Your task to perform on an android device: Empty the shopping cart on amazon.com. Search for razer kraken on amazon.com, select the first entry, and add it to the cart. Image 0: 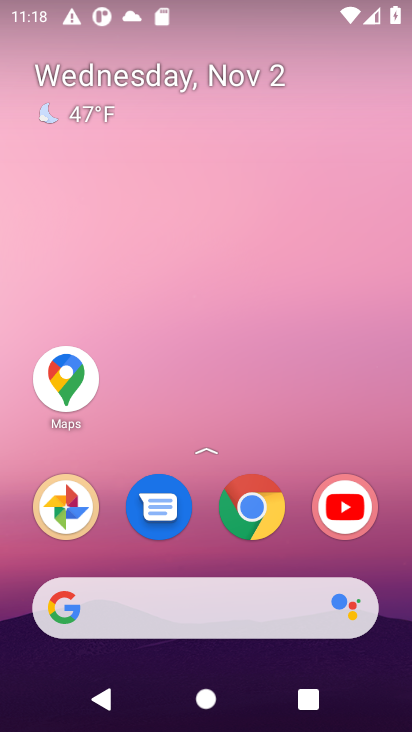
Step 0: click (253, 588)
Your task to perform on an android device: Empty the shopping cart on amazon.com. Search for razer kraken on amazon.com, select the first entry, and add it to the cart. Image 1: 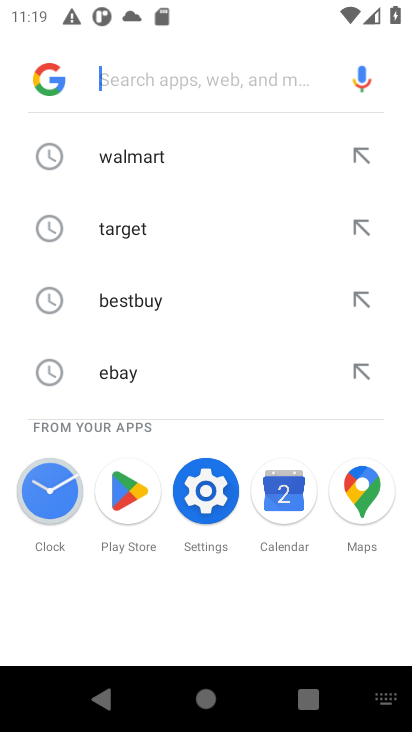
Step 1: type "amazon"
Your task to perform on an android device: Empty the shopping cart on amazon.com. Search for razer kraken on amazon.com, select the first entry, and add it to the cart. Image 2: 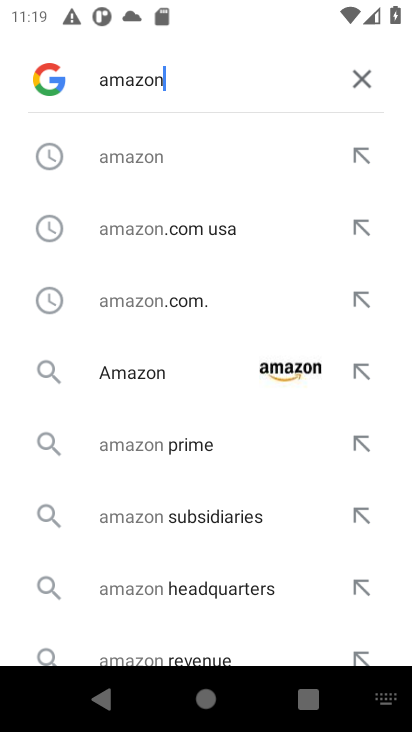
Step 2: click (284, 383)
Your task to perform on an android device: Empty the shopping cart on amazon.com. Search for razer kraken on amazon.com, select the first entry, and add it to the cart. Image 3: 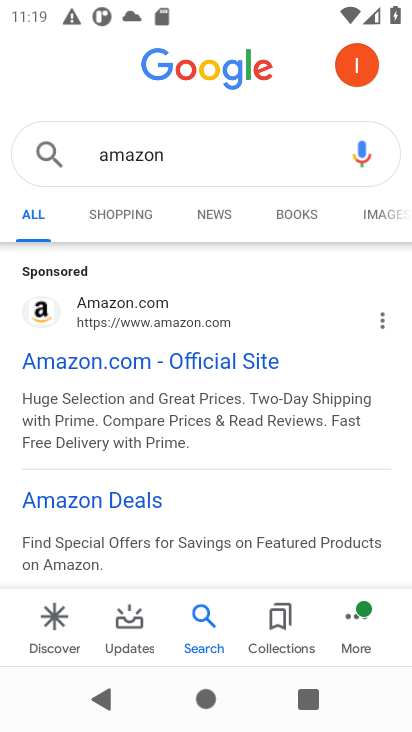
Step 3: click (164, 367)
Your task to perform on an android device: Empty the shopping cart on amazon.com. Search for razer kraken on amazon.com, select the first entry, and add it to the cart. Image 4: 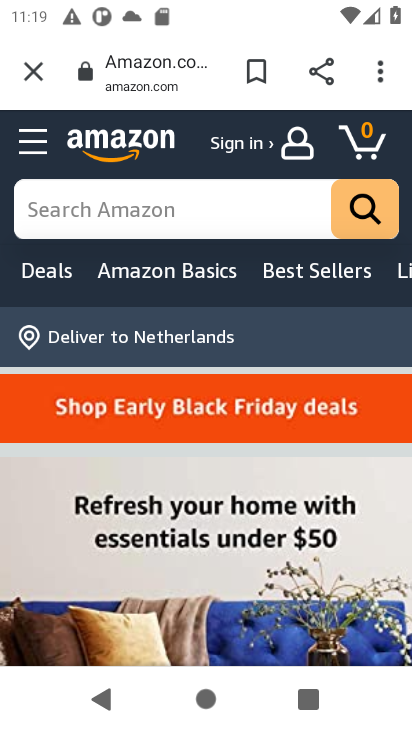
Step 4: click (196, 230)
Your task to perform on an android device: Empty the shopping cart on amazon.com. Search for razer kraken on amazon.com, select the first entry, and add it to the cart. Image 5: 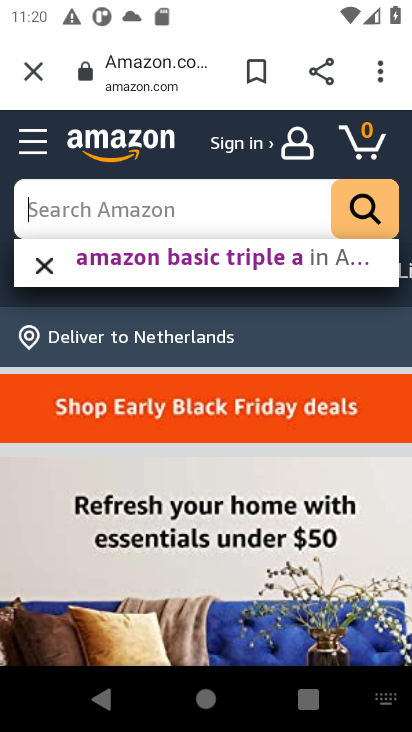
Step 5: type "razer karken"
Your task to perform on an android device: Empty the shopping cart on amazon.com. Search for razer kraken on amazon.com, select the first entry, and add it to the cart. Image 6: 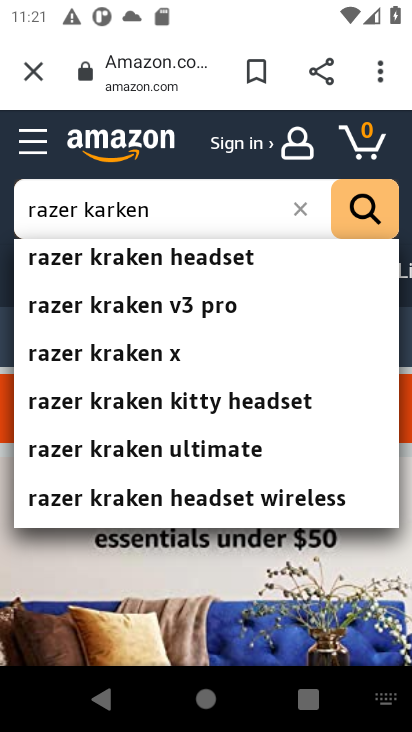
Step 6: click (208, 262)
Your task to perform on an android device: Empty the shopping cart on amazon.com. Search for razer kraken on amazon.com, select the first entry, and add it to the cart. Image 7: 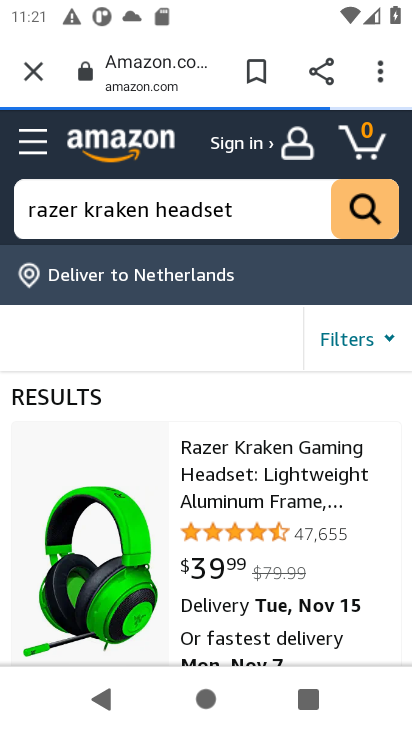
Step 7: click (231, 443)
Your task to perform on an android device: Empty the shopping cart on amazon.com. Search for razer kraken on amazon.com, select the first entry, and add it to the cart. Image 8: 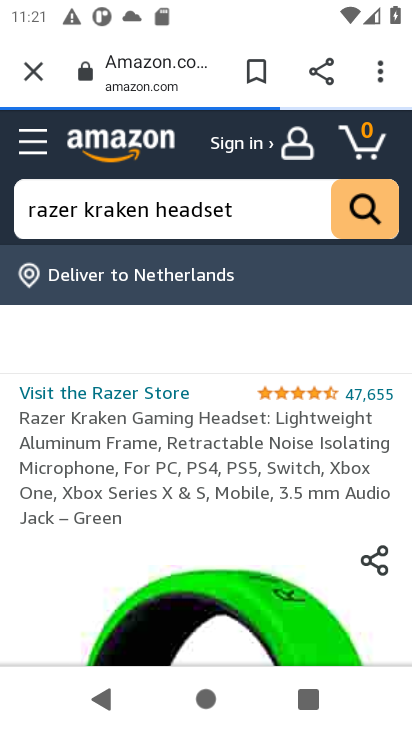
Step 8: drag from (172, 589) to (232, 188)
Your task to perform on an android device: Empty the shopping cart on amazon.com. Search for razer kraken on amazon.com, select the first entry, and add it to the cart. Image 9: 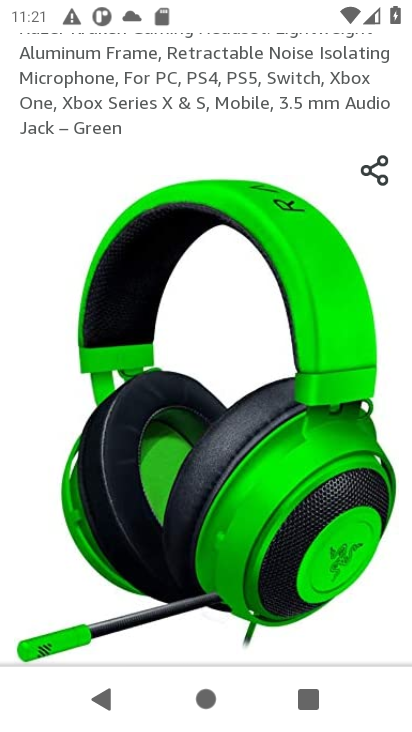
Step 9: drag from (261, 622) to (253, 368)
Your task to perform on an android device: Empty the shopping cart on amazon.com. Search for razer kraken on amazon.com, select the first entry, and add it to the cart. Image 10: 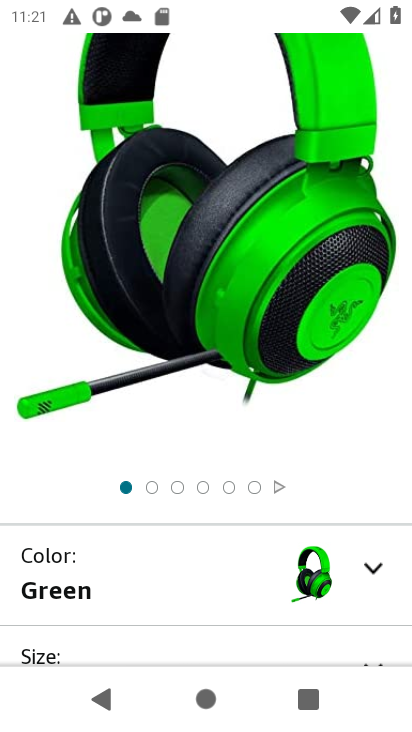
Step 10: drag from (238, 604) to (255, 206)
Your task to perform on an android device: Empty the shopping cart on amazon.com. Search for razer kraken on amazon.com, select the first entry, and add it to the cart. Image 11: 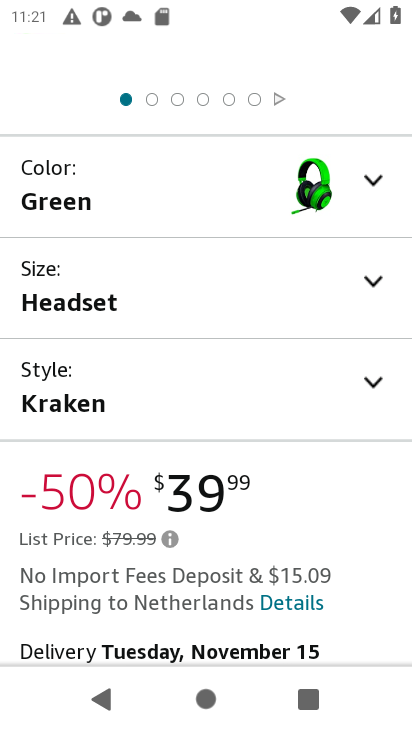
Step 11: drag from (284, 591) to (273, 301)
Your task to perform on an android device: Empty the shopping cart on amazon.com. Search for razer kraken on amazon.com, select the first entry, and add it to the cart. Image 12: 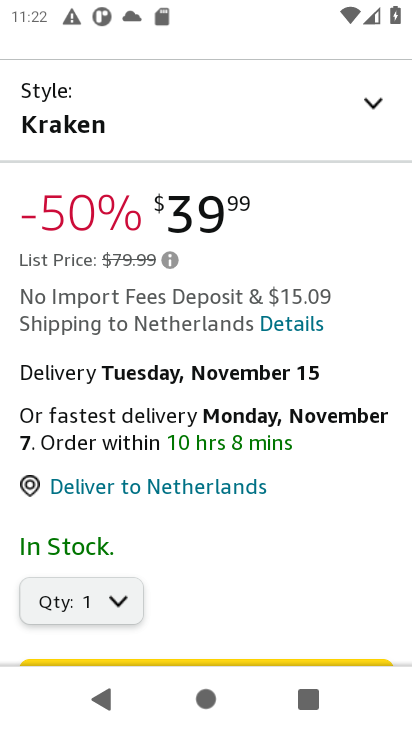
Step 12: drag from (210, 569) to (208, 295)
Your task to perform on an android device: Empty the shopping cart on amazon.com. Search for razer kraken on amazon.com, select the first entry, and add it to the cart. Image 13: 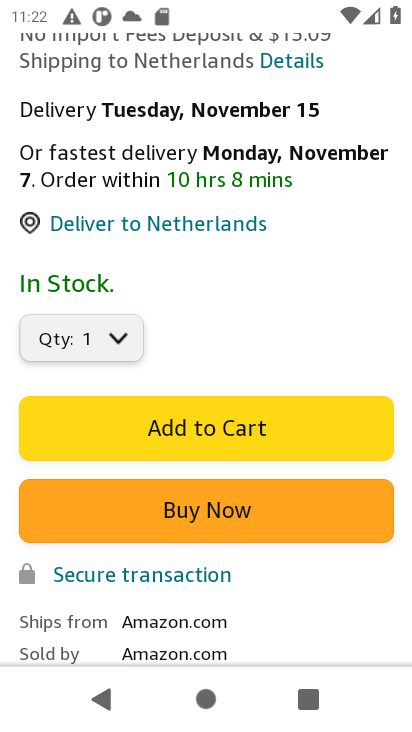
Step 13: click (201, 452)
Your task to perform on an android device: Empty the shopping cart on amazon.com. Search for razer kraken on amazon.com, select the first entry, and add it to the cart. Image 14: 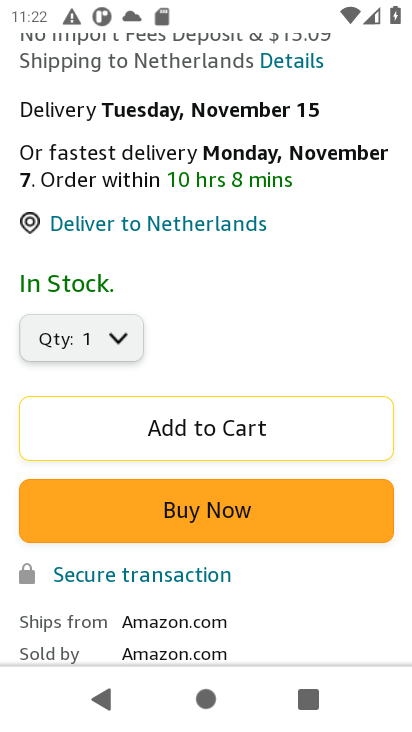
Step 14: task complete